Your task to perform on an android device: change the clock style Image 0: 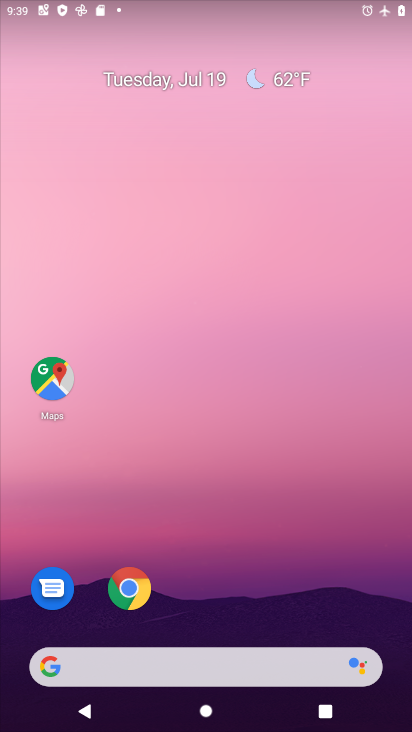
Step 0: drag from (296, 598) to (175, 7)
Your task to perform on an android device: change the clock style Image 1: 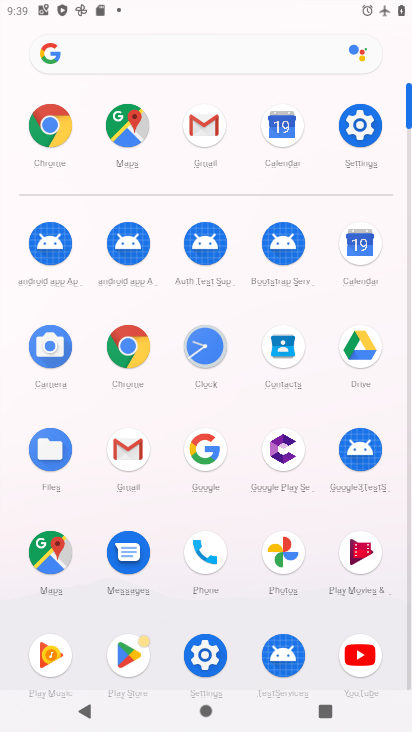
Step 1: click (207, 355)
Your task to perform on an android device: change the clock style Image 2: 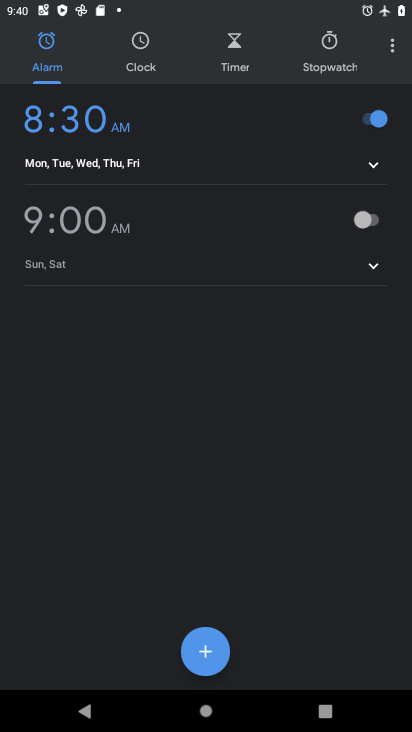
Step 2: click (384, 47)
Your task to perform on an android device: change the clock style Image 3: 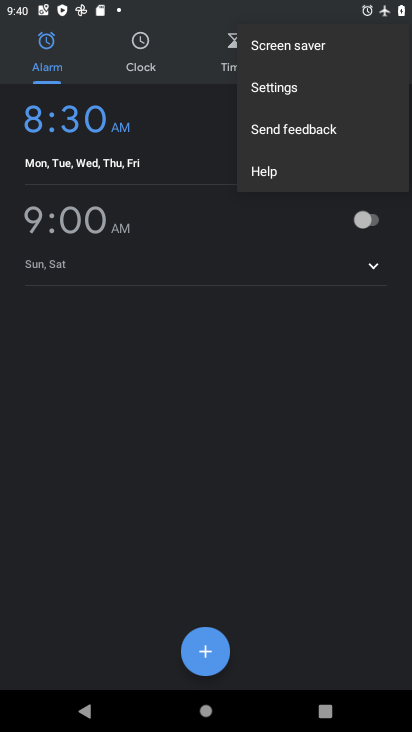
Step 3: click (282, 85)
Your task to perform on an android device: change the clock style Image 4: 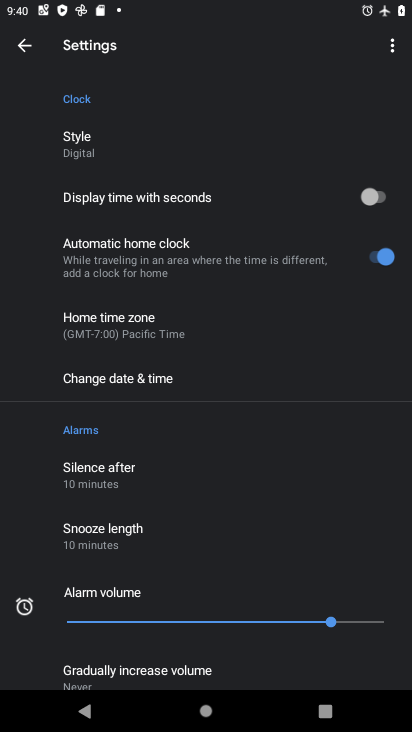
Step 4: click (89, 131)
Your task to perform on an android device: change the clock style Image 5: 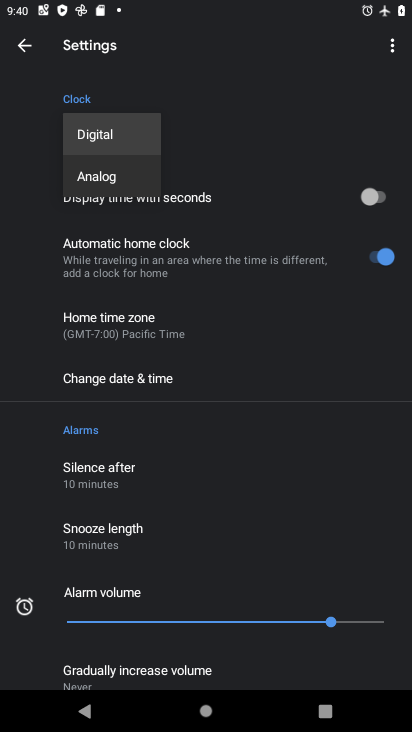
Step 5: click (93, 176)
Your task to perform on an android device: change the clock style Image 6: 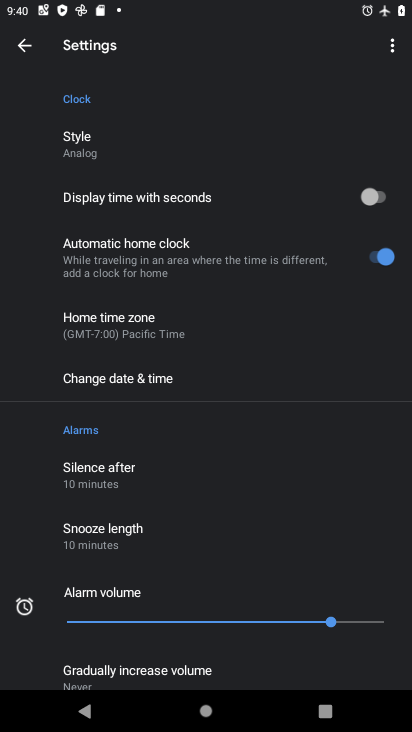
Step 6: task complete